Your task to perform on an android device: change the clock display to digital Image 0: 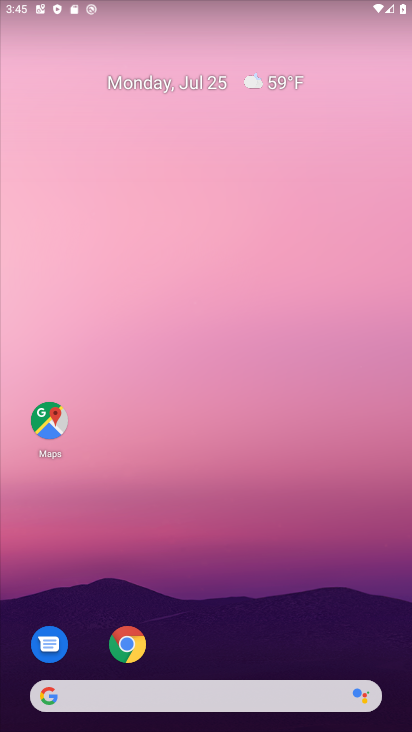
Step 0: drag from (249, 658) to (251, 171)
Your task to perform on an android device: change the clock display to digital Image 1: 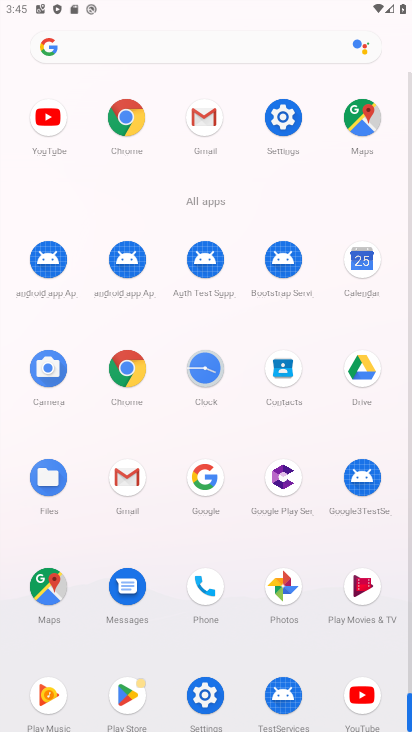
Step 1: click (193, 370)
Your task to perform on an android device: change the clock display to digital Image 2: 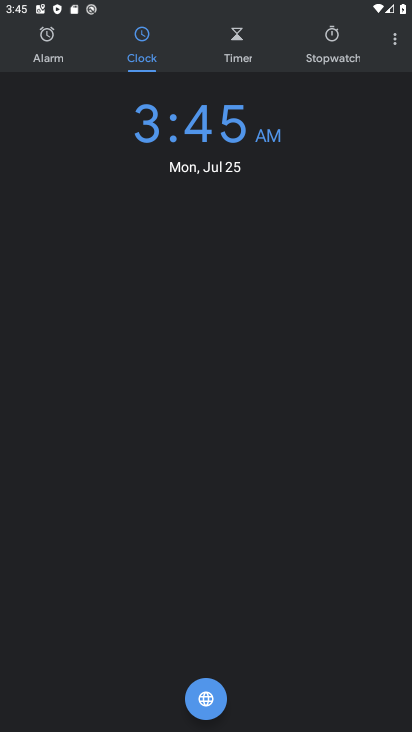
Step 2: click (404, 47)
Your task to perform on an android device: change the clock display to digital Image 3: 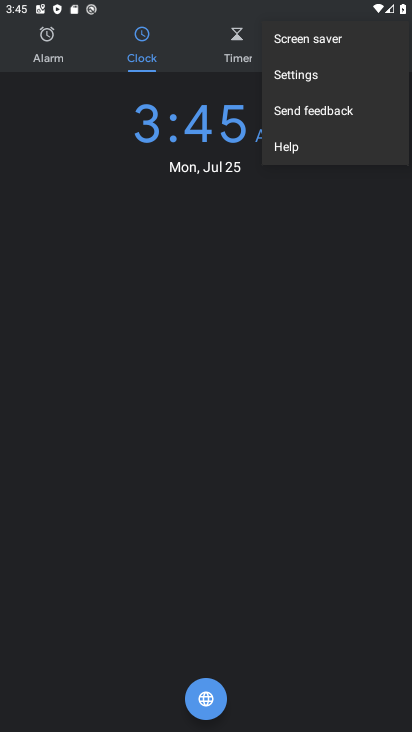
Step 3: click (296, 78)
Your task to perform on an android device: change the clock display to digital Image 4: 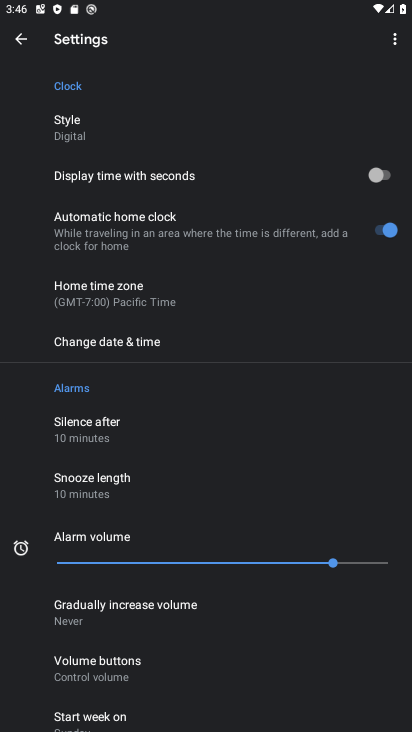
Step 4: task complete